Your task to perform on an android device: What's the weather going to be tomorrow? Image 0: 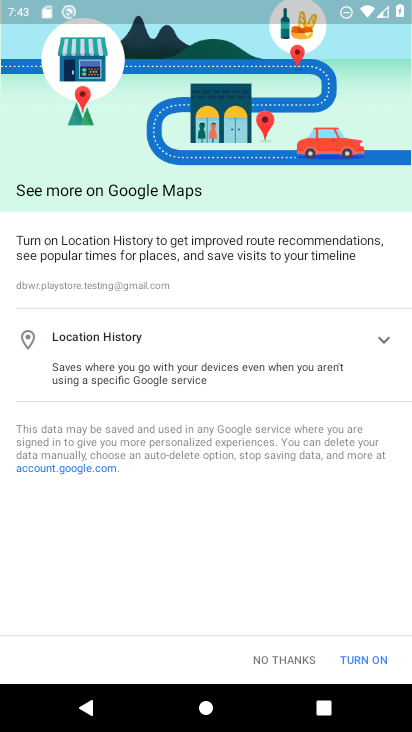
Step 0: press back button
Your task to perform on an android device: What's the weather going to be tomorrow? Image 1: 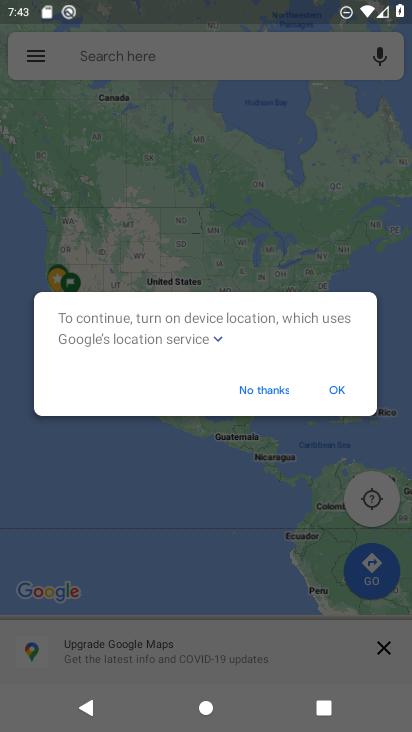
Step 1: press home button
Your task to perform on an android device: What's the weather going to be tomorrow? Image 2: 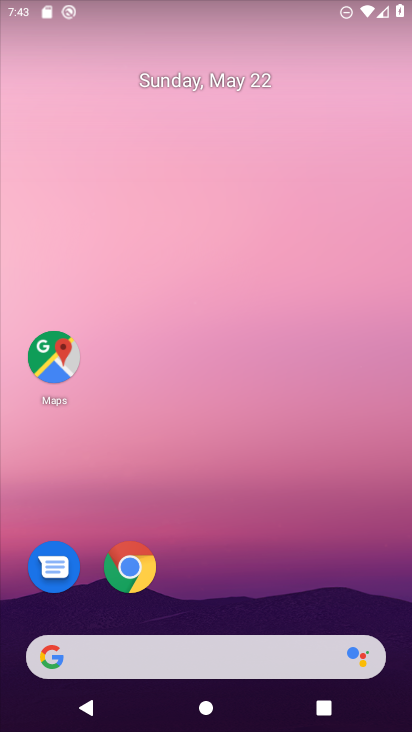
Step 2: drag from (231, 577) to (283, 1)
Your task to perform on an android device: What's the weather going to be tomorrow? Image 3: 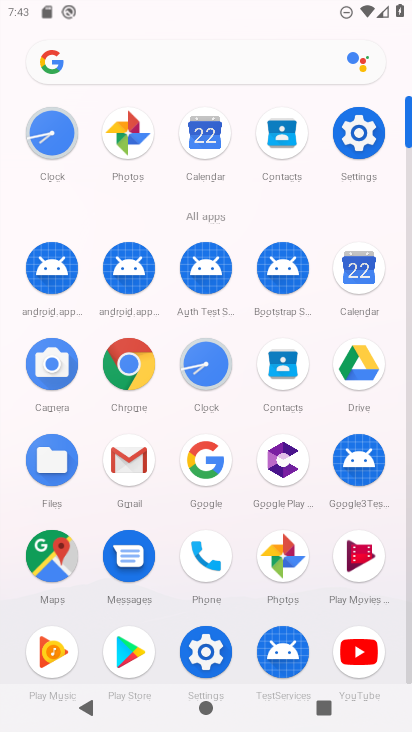
Step 3: click (145, 53)
Your task to perform on an android device: What's the weather going to be tomorrow? Image 4: 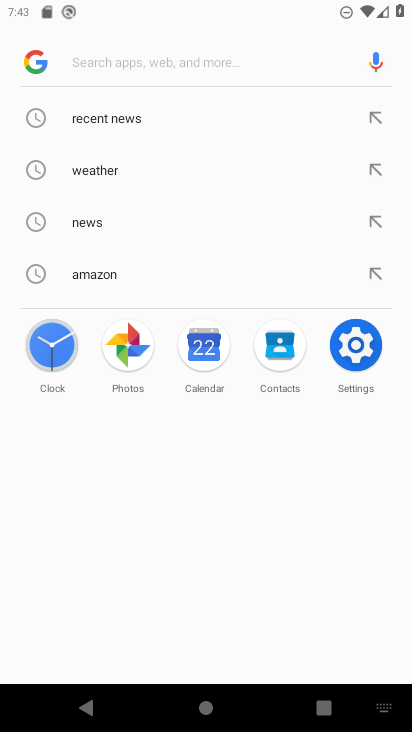
Step 4: click (107, 163)
Your task to perform on an android device: What's the weather going to be tomorrow? Image 5: 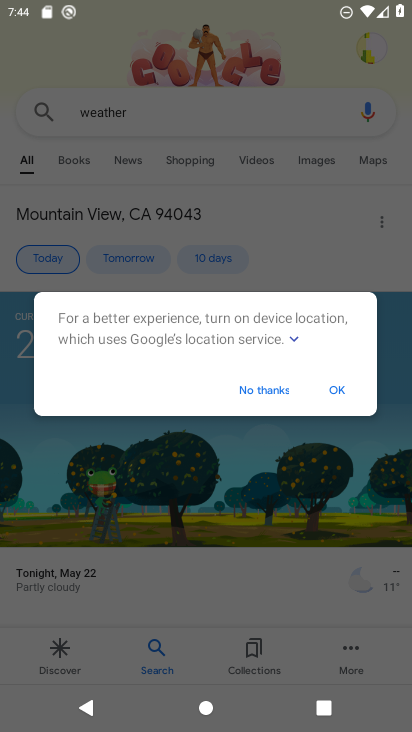
Step 5: click (333, 387)
Your task to perform on an android device: What's the weather going to be tomorrow? Image 6: 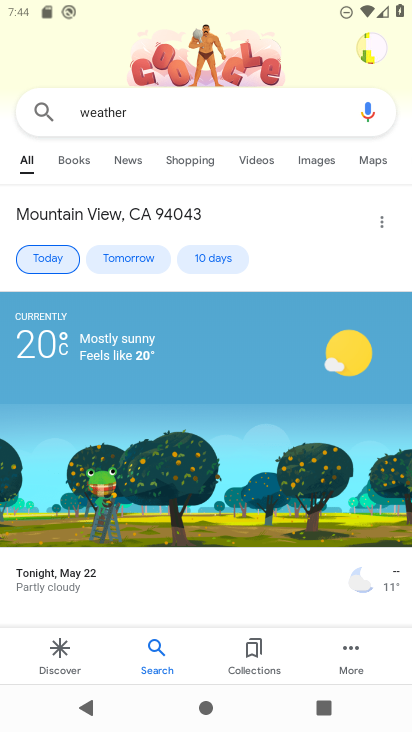
Step 6: click (147, 257)
Your task to perform on an android device: What's the weather going to be tomorrow? Image 7: 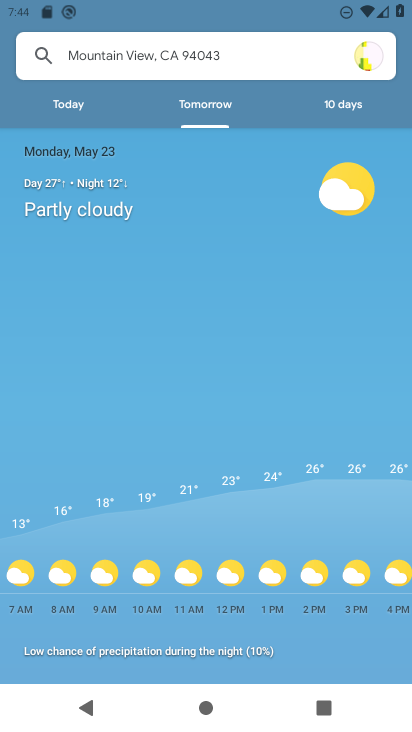
Step 7: task complete